Your task to perform on an android device: toggle notification dots Image 0: 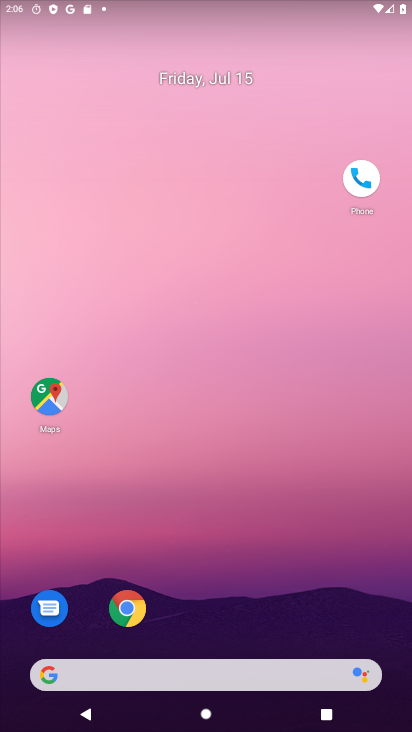
Step 0: drag from (206, 416) to (267, 3)
Your task to perform on an android device: toggle notification dots Image 1: 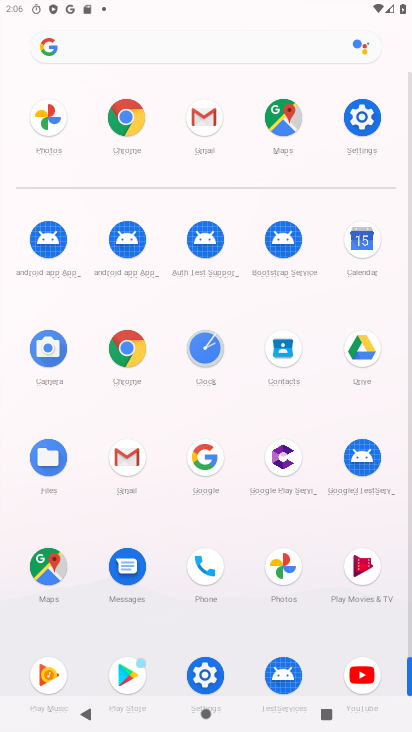
Step 1: drag from (251, 627) to (283, 251)
Your task to perform on an android device: toggle notification dots Image 2: 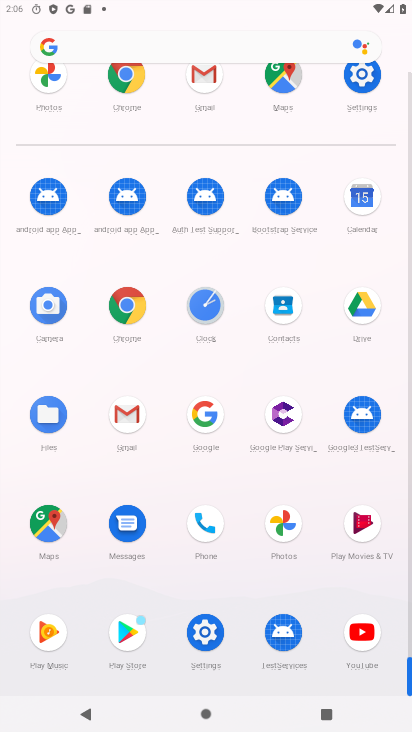
Step 2: click (216, 635)
Your task to perform on an android device: toggle notification dots Image 3: 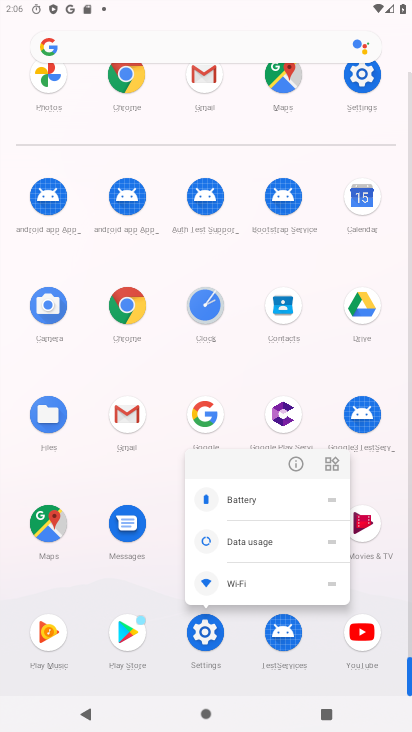
Step 3: click (294, 458)
Your task to perform on an android device: toggle notification dots Image 4: 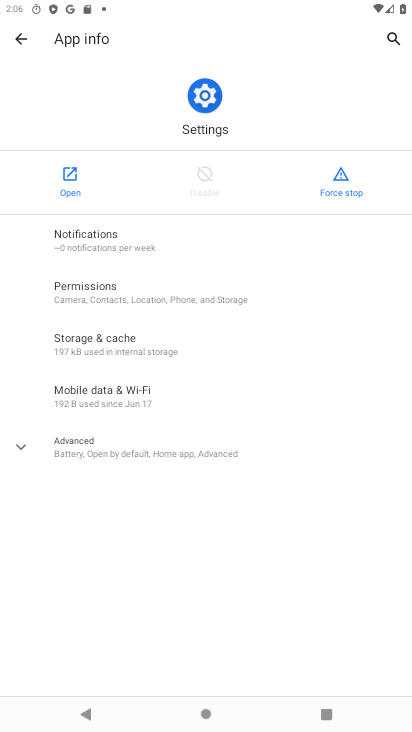
Step 4: click (58, 164)
Your task to perform on an android device: toggle notification dots Image 5: 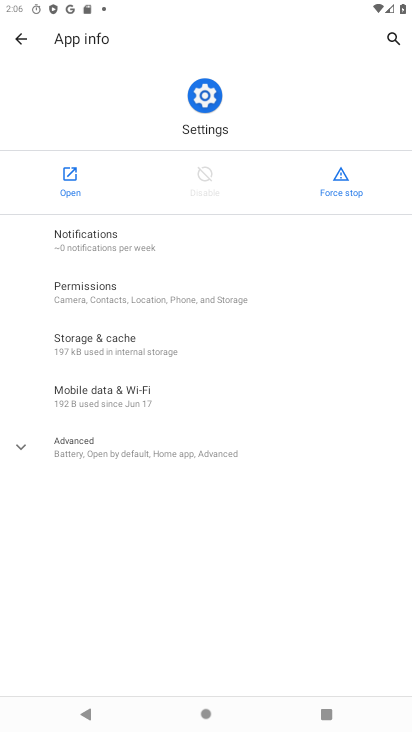
Step 5: click (58, 165)
Your task to perform on an android device: toggle notification dots Image 6: 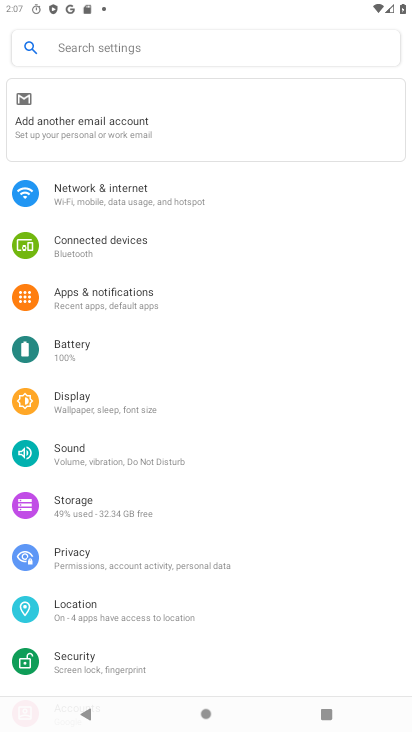
Step 6: click (124, 295)
Your task to perform on an android device: toggle notification dots Image 7: 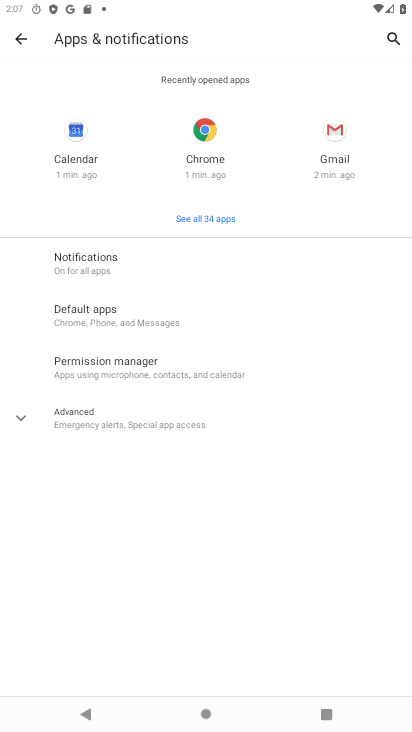
Step 7: click (114, 258)
Your task to perform on an android device: toggle notification dots Image 8: 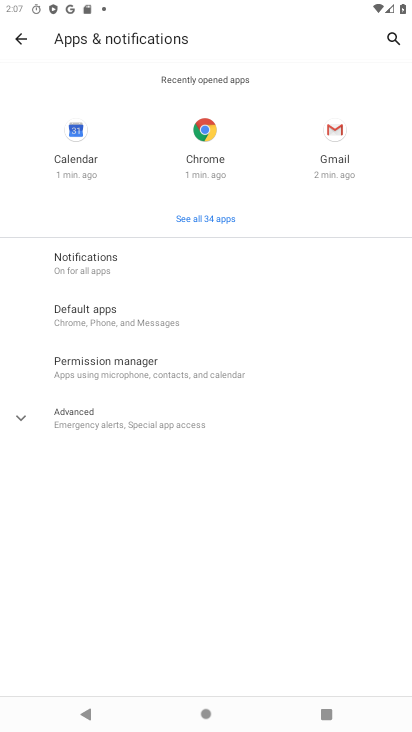
Step 8: click (114, 258)
Your task to perform on an android device: toggle notification dots Image 9: 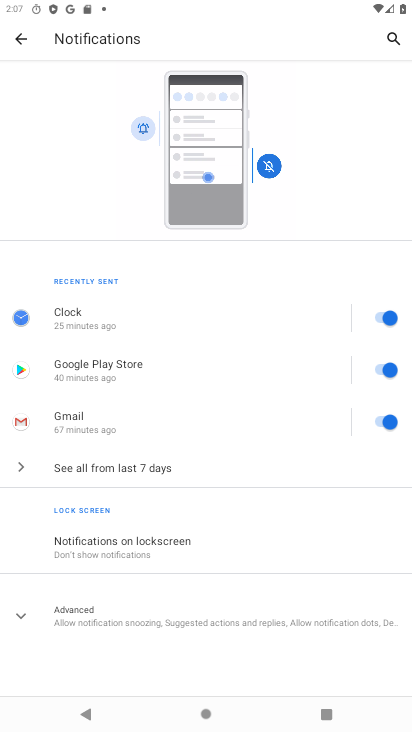
Step 9: drag from (153, 529) to (181, 253)
Your task to perform on an android device: toggle notification dots Image 10: 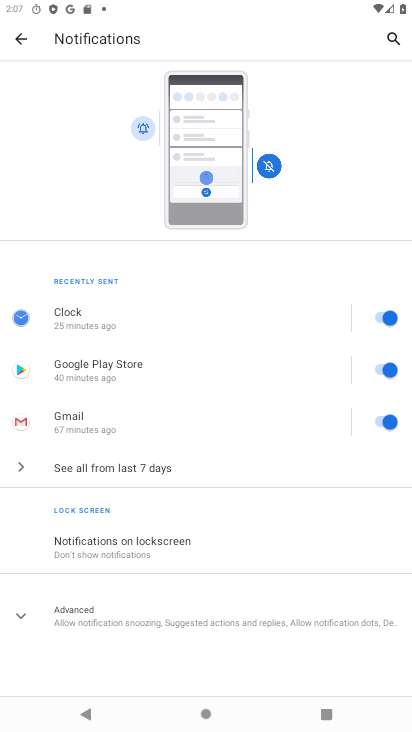
Step 10: click (115, 626)
Your task to perform on an android device: toggle notification dots Image 11: 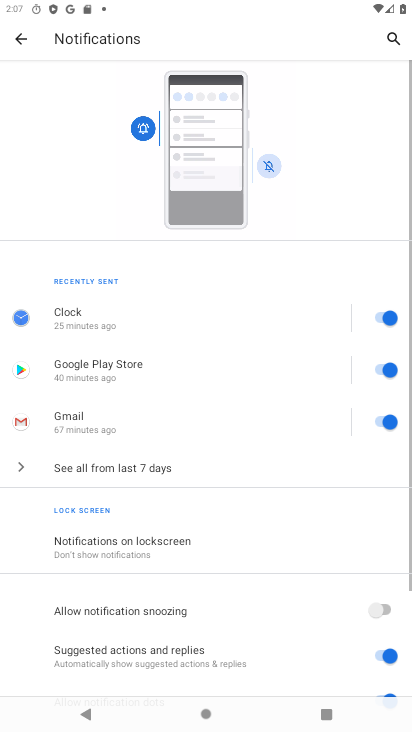
Step 11: drag from (162, 603) to (234, 289)
Your task to perform on an android device: toggle notification dots Image 12: 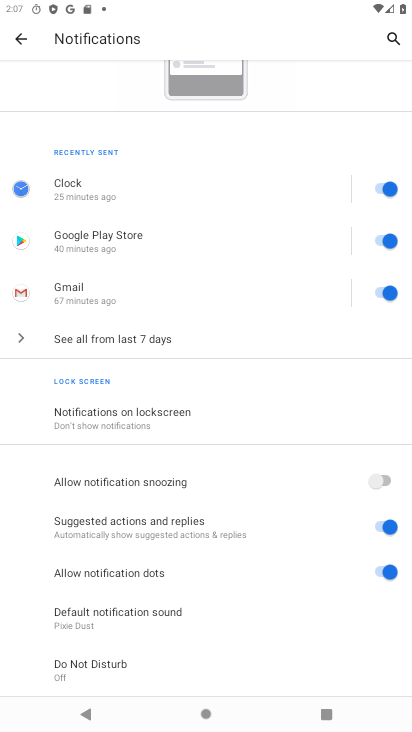
Step 12: click (370, 569)
Your task to perform on an android device: toggle notification dots Image 13: 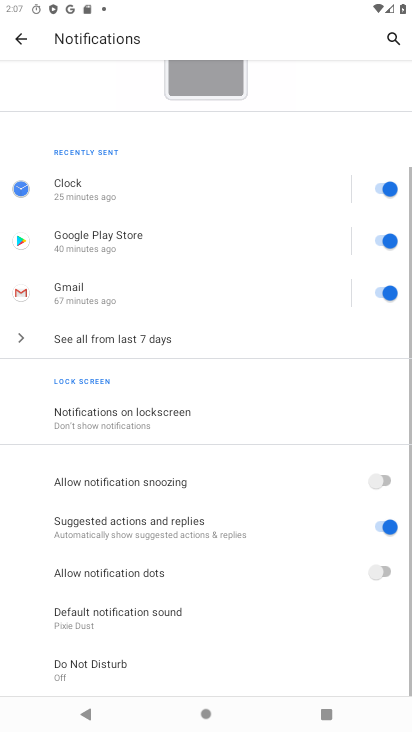
Step 13: task complete